Your task to perform on an android device: refresh tabs in the chrome app Image 0: 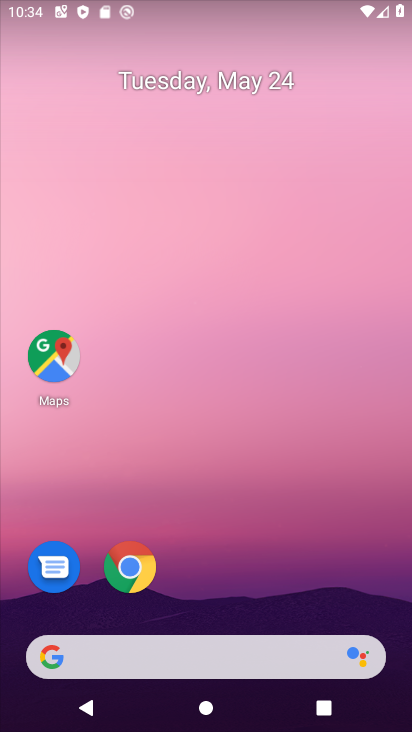
Step 0: press home button
Your task to perform on an android device: refresh tabs in the chrome app Image 1: 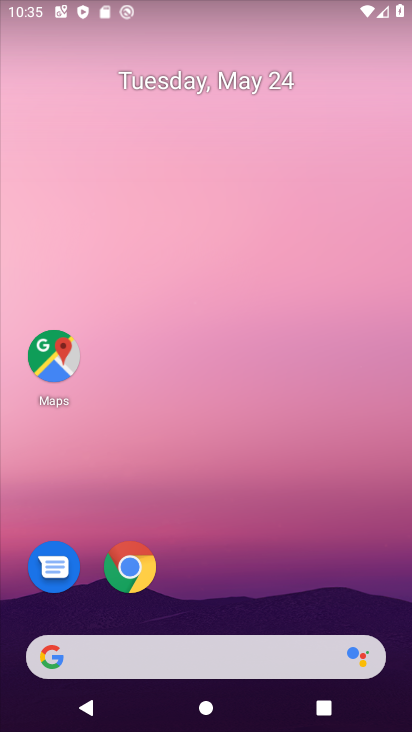
Step 1: drag from (252, 683) to (283, 141)
Your task to perform on an android device: refresh tabs in the chrome app Image 2: 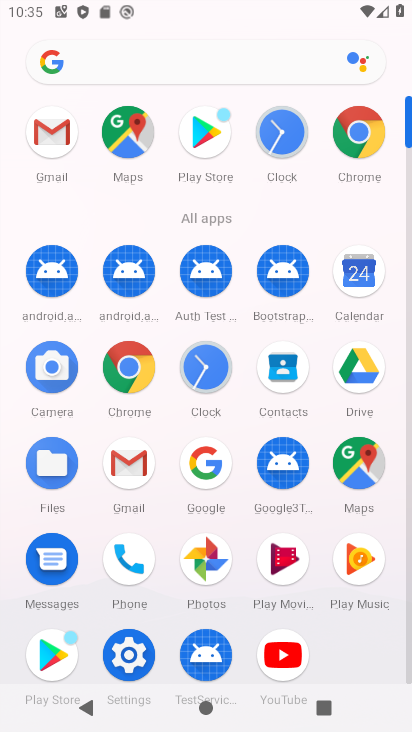
Step 2: click (374, 147)
Your task to perform on an android device: refresh tabs in the chrome app Image 3: 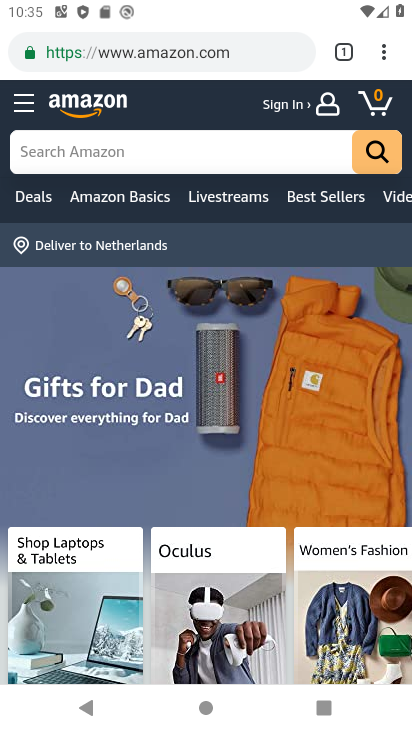
Step 3: click (388, 59)
Your task to perform on an android device: refresh tabs in the chrome app Image 4: 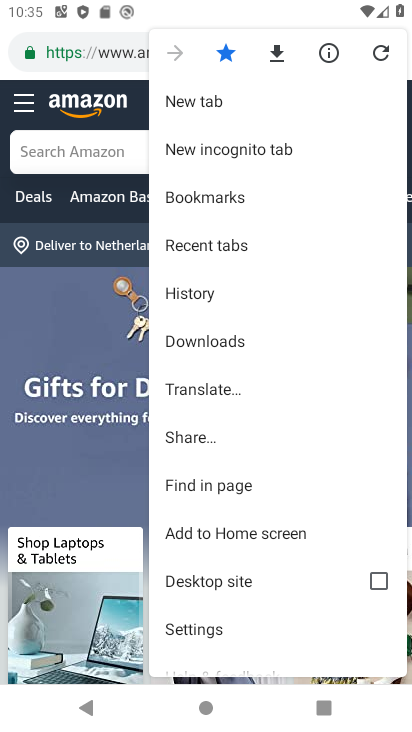
Step 4: click (375, 51)
Your task to perform on an android device: refresh tabs in the chrome app Image 5: 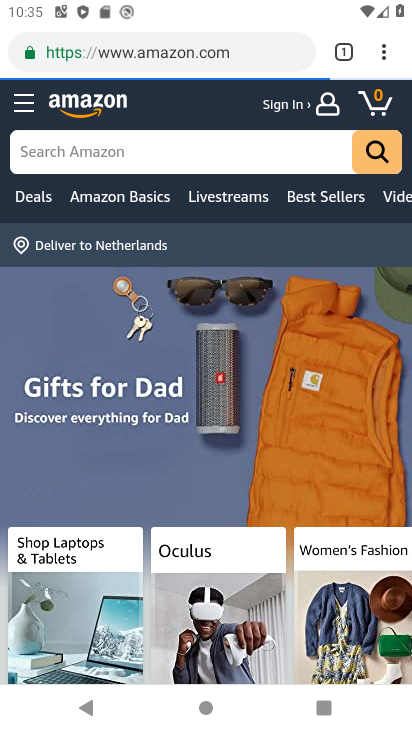
Step 5: task complete